Your task to perform on an android device: Search for Italian restaurants on Maps Image 0: 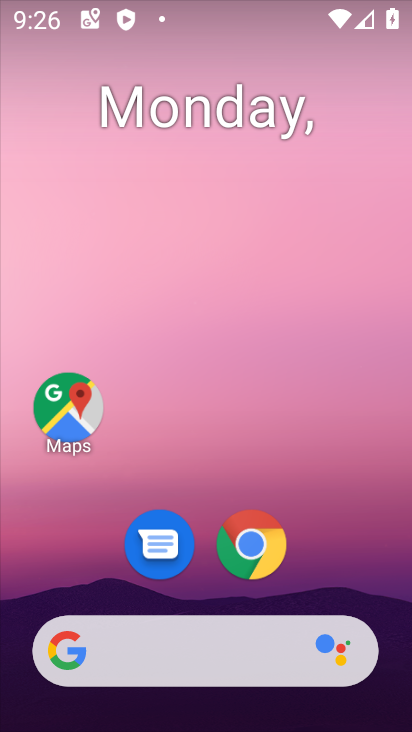
Step 0: click (73, 404)
Your task to perform on an android device: Search for Italian restaurants on Maps Image 1: 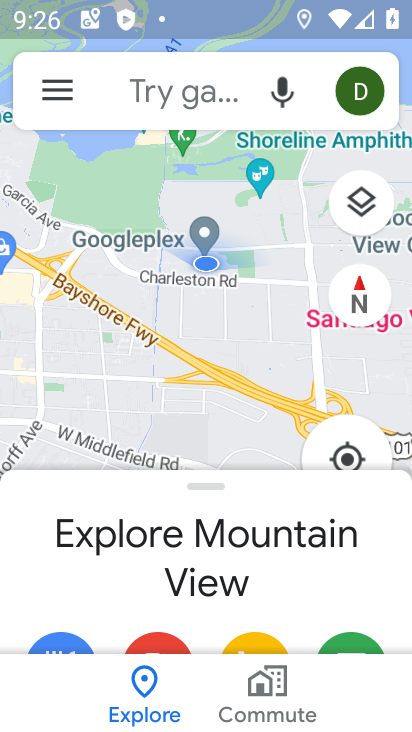
Step 1: click (154, 84)
Your task to perform on an android device: Search for Italian restaurants on Maps Image 2: 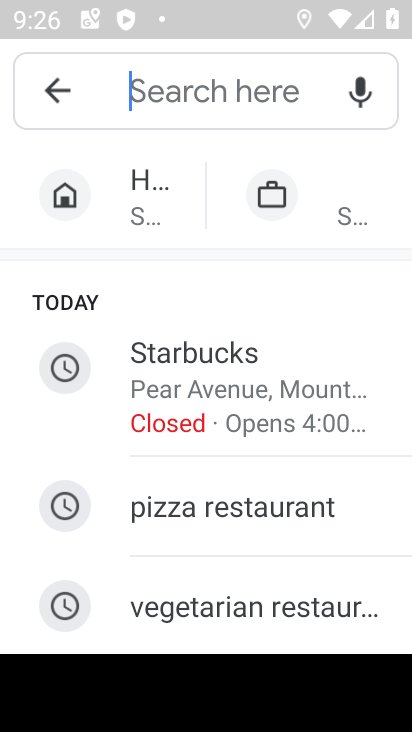
Step 2: type "italian"
Your task to perform on an android device: Search for Italian restaurants on Maps Image 3: 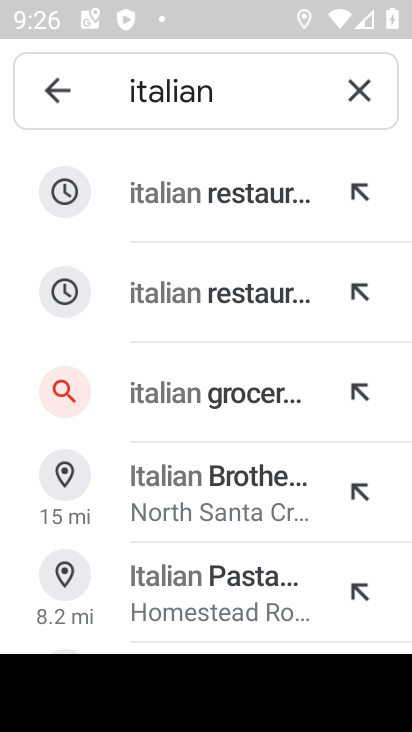
Step 3: click (238, 199)
Your task to perform on an android device: Search for Italian restaurants on Maps Image 4: 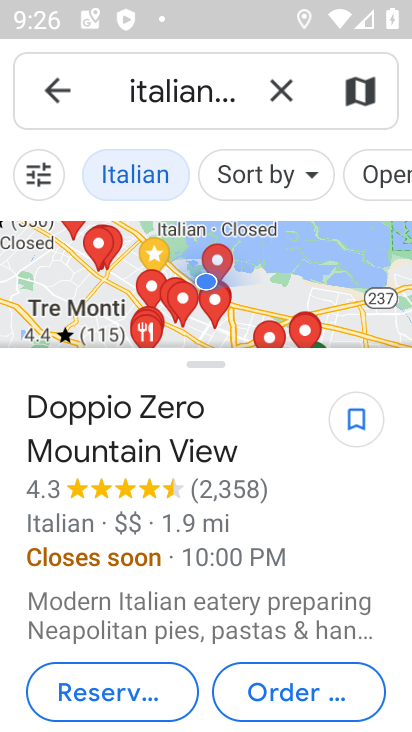
Step 4: task complete